Your task to perform on an android device: What's the weather going to be tomorrow? Image 0: 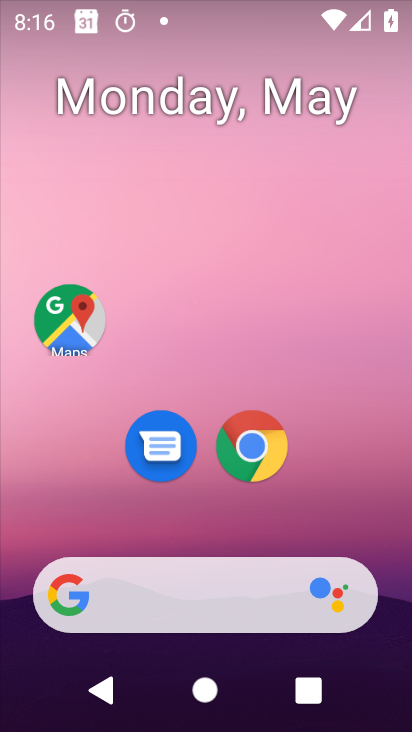
Step 0: click (124, 596)
Your task to perform on an android device: What's the weather going to be tomorrow? Image 1: 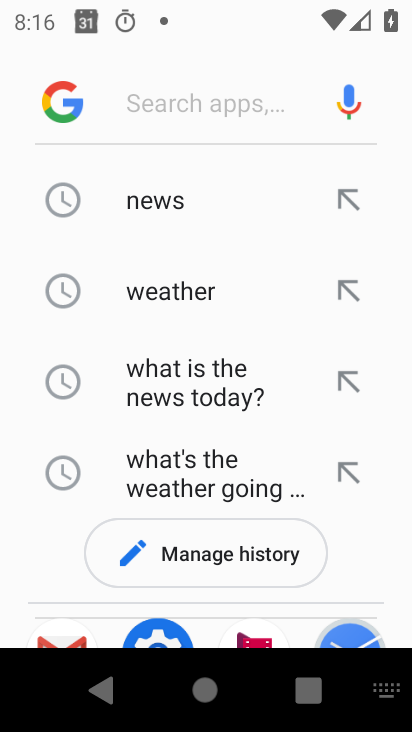
Step 1: click (161, 289)
Your task to perform on an android device: What's the weather going to be tomorrow? Image 2: 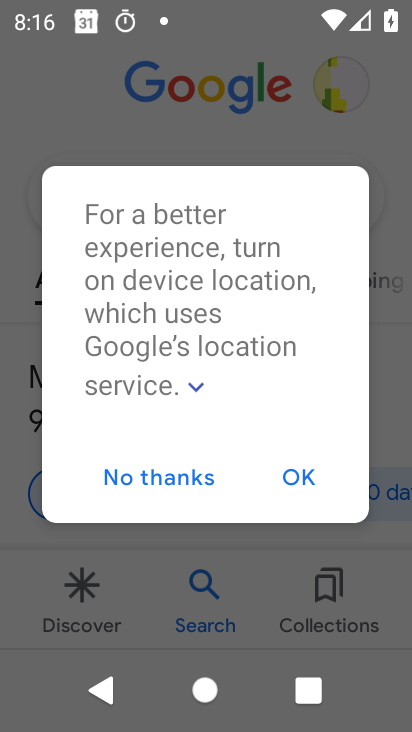
Step 2: click (188, 480)
Your task to perform on an android device: What's the weather going to be tomorrow? Image 3: 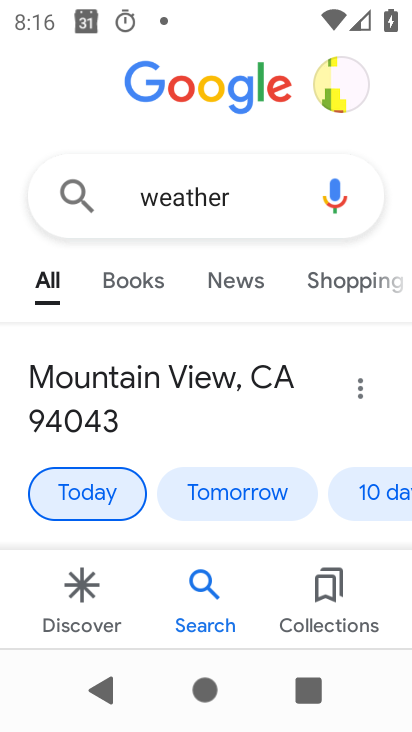
Step 3: click (247, 492)
Your task to perform on an android device: What's the weather going to be tomorrow? Image 4: 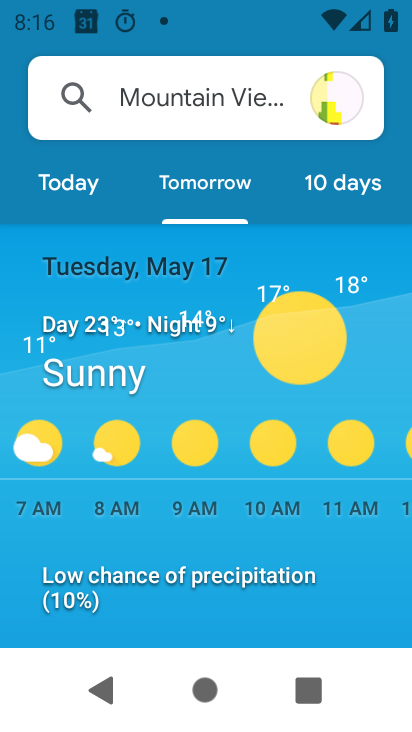
Step 4: task complete